Your task to perform on an android device: Clear all items from cart on bestbuy. Image 0: 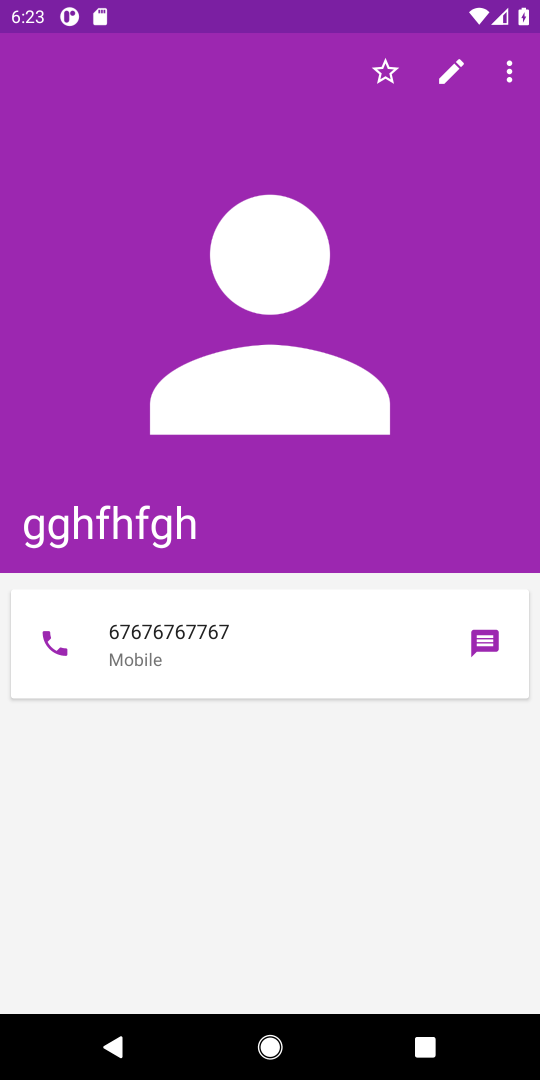
Step 0: press home button
Your task to perform on an android device: Clear all items from cart on bestbuy. Image 1: 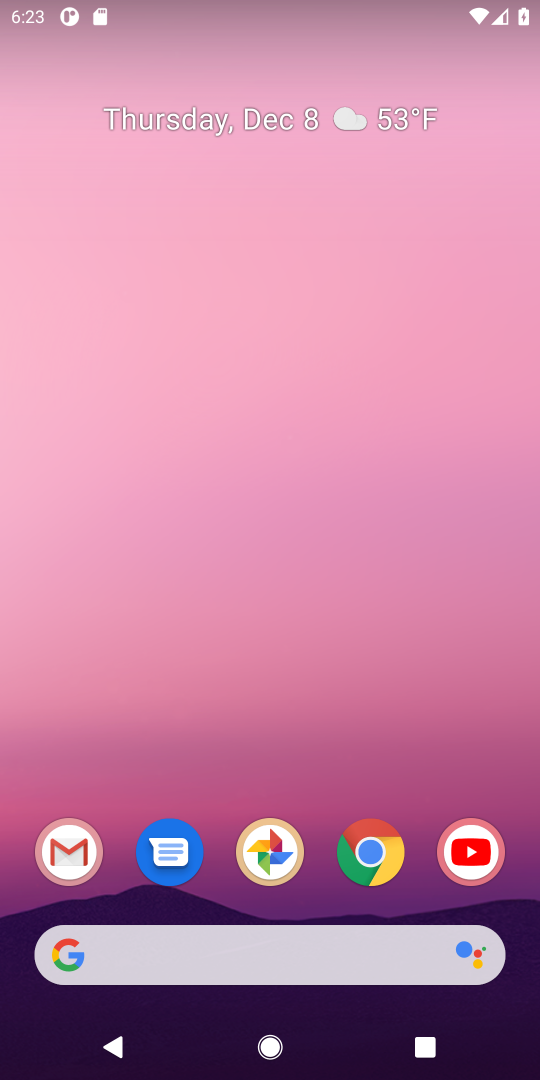
Step 1: click (344, 937)
Your task to perform on an android device: Clear all items from cart on bestbuy. Image 2: 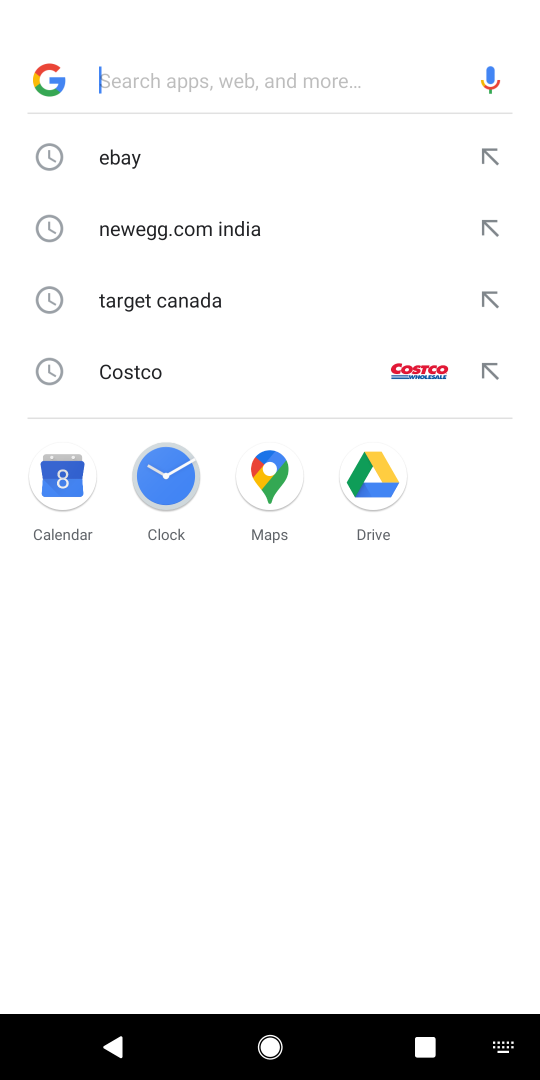
Step 2: type "bestbuy"
Your task to perform on an android device: Clear all items from cart on bestbuy. Image 3: 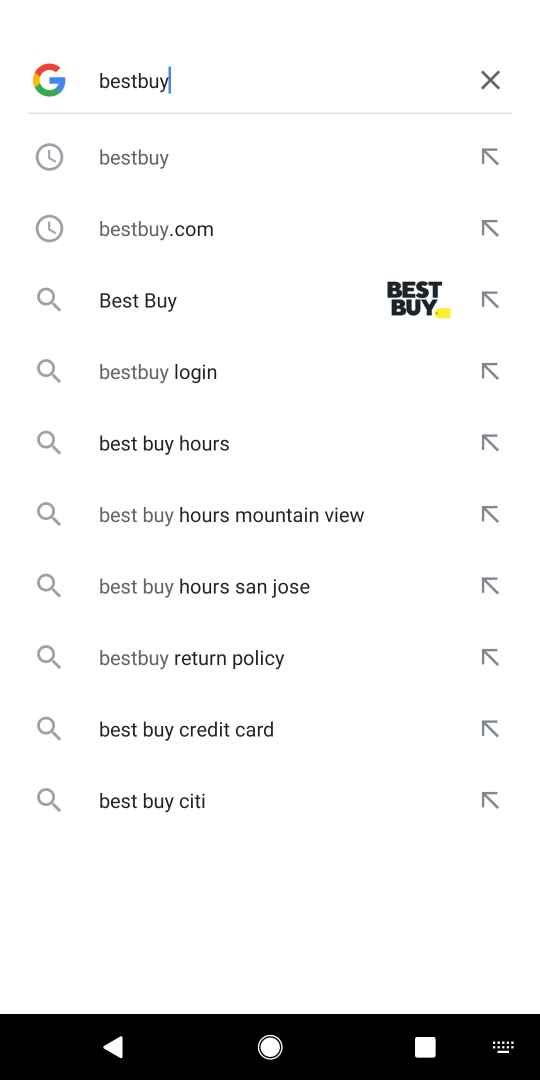
Step 3: click (247, 295)
Your task to perform on an android device: Clear all items from cart on bestbuy. Image 4: 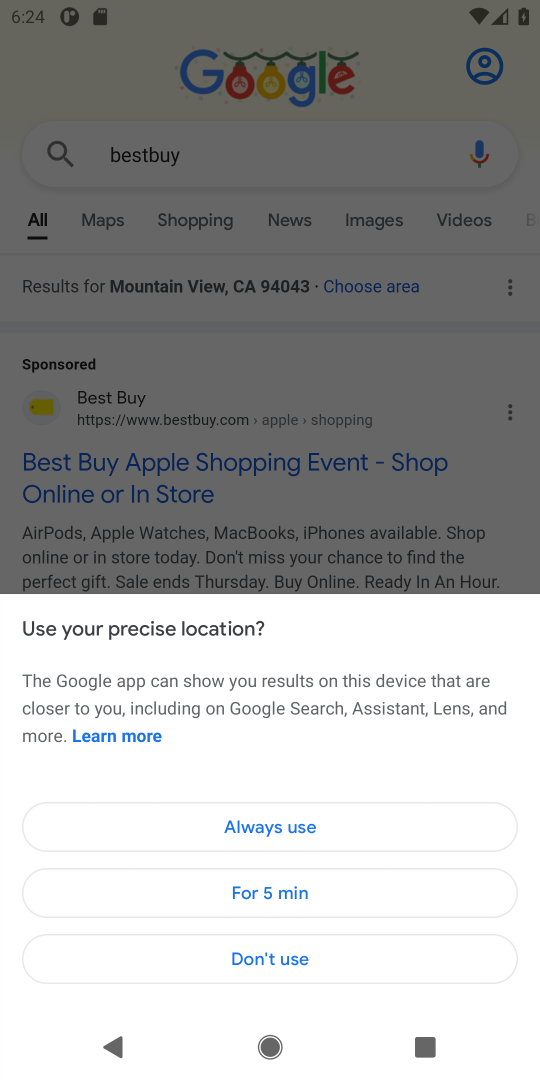
Step 4: click (271, 451)
Your task to perform on an android device: Clear all items from cart on bestbuy. Image 5: 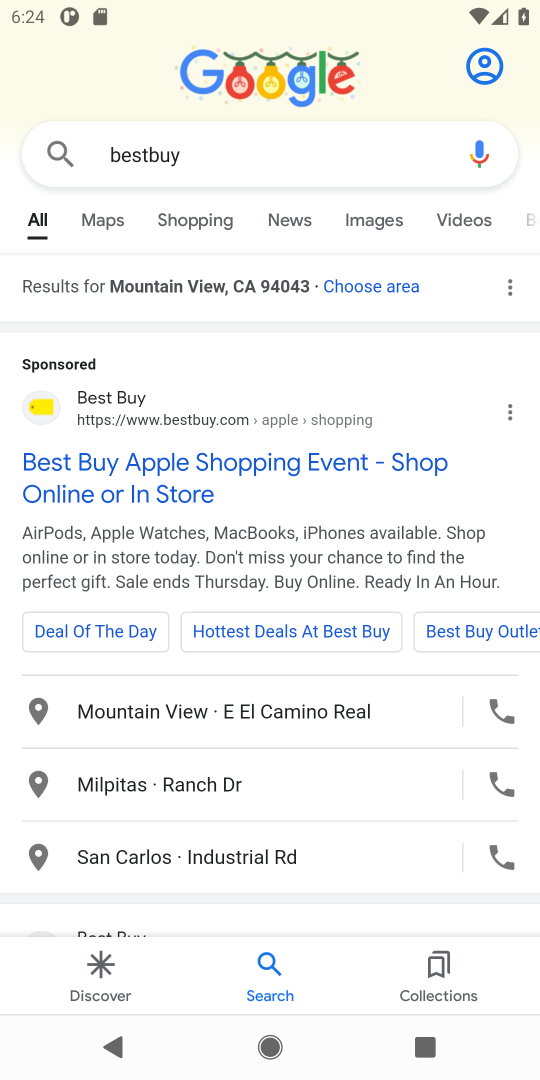
Step 5: click (173, 494)
Your task to perform on an android device: Clear all items from cart on bestbuy. Image 6: 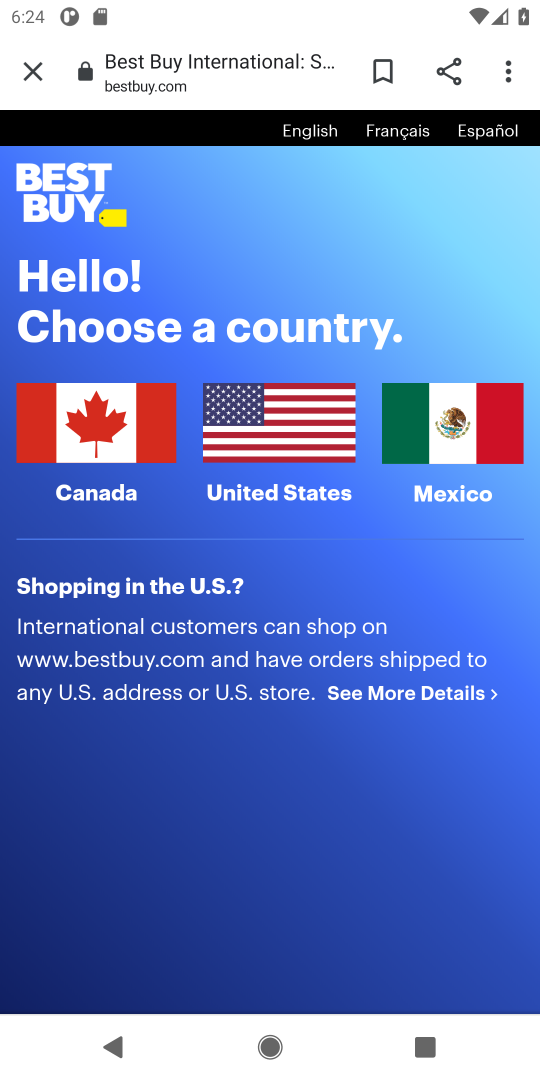
Step 6: click (130, 473)
Your task to perform on an android device: Clear all items from cart on bestbuy. Image 7: 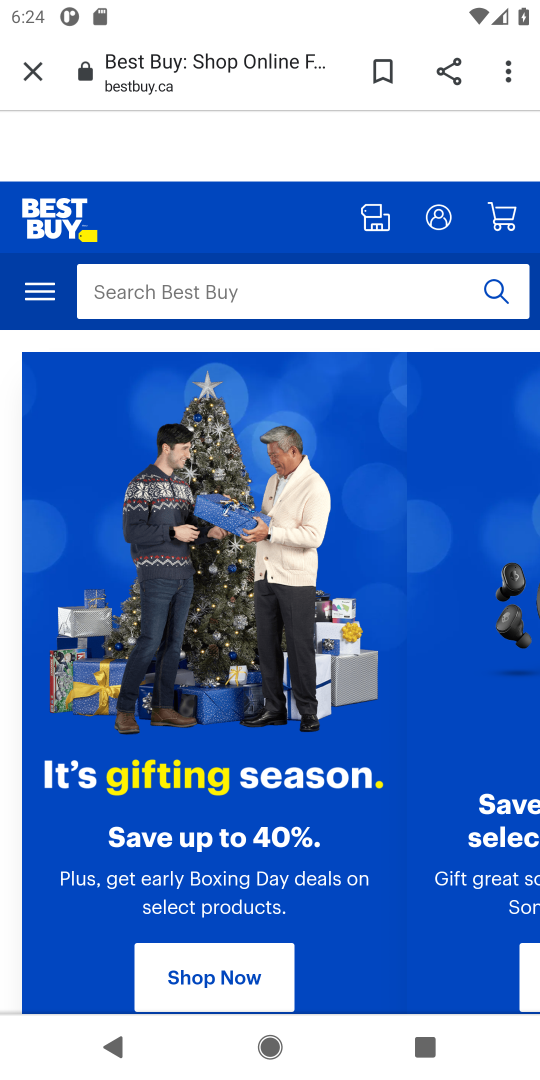
Step 7: click (197, 303)
Your task to perform on an android device: Clear all items from cart on bestbuy. Image 8: 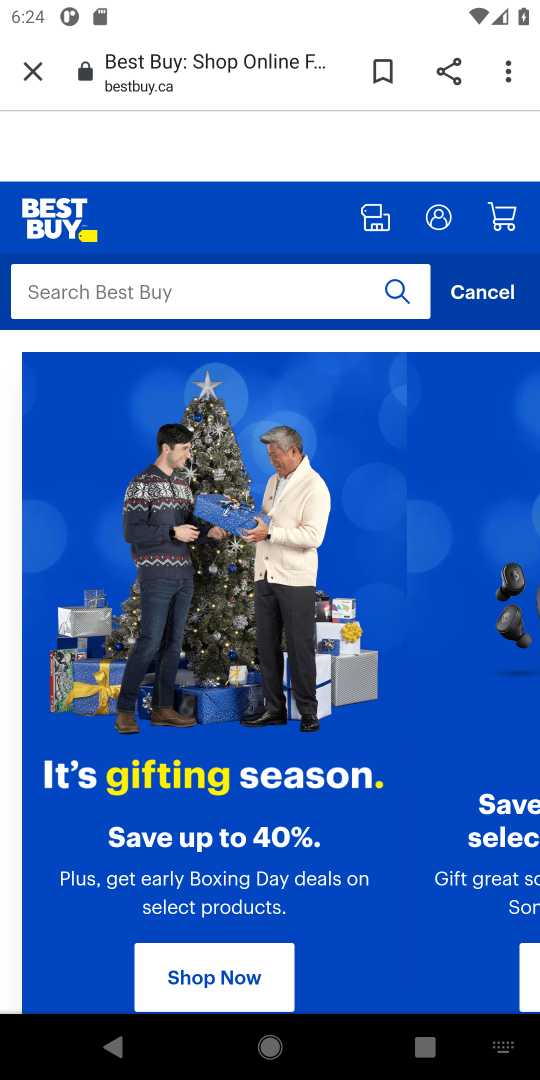
Step 8: click (512, 216)
Your task to perform on an android device: Clear all items from cart on bestbuy. Image 9: 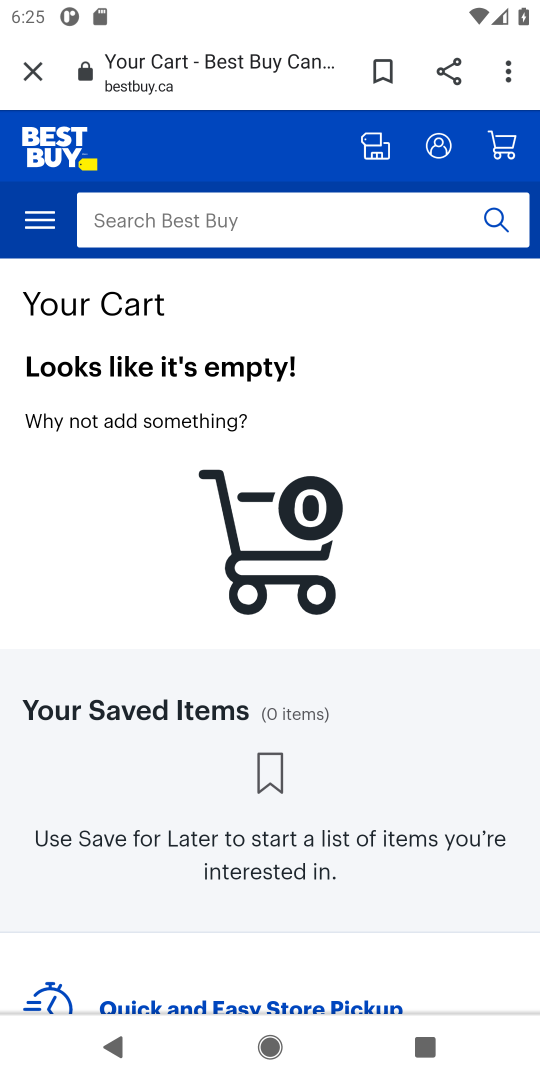
Step 9: task complete